Your task to perform on an android device: set the timer Image 0: 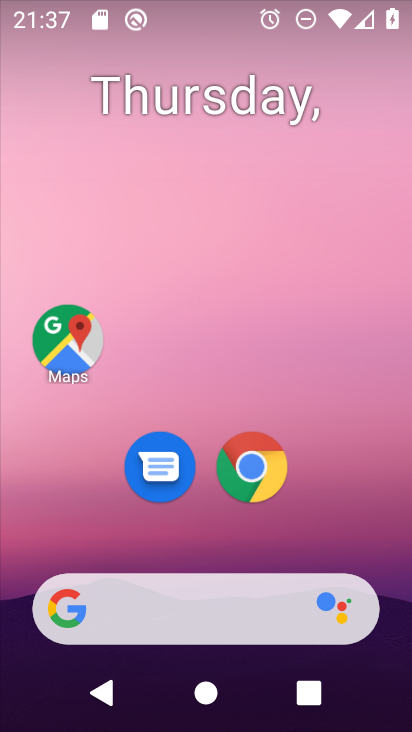
Step 0: drag from (360, 481) to (344, 205)
Your task to perform on an android device: set the timer Image 1: 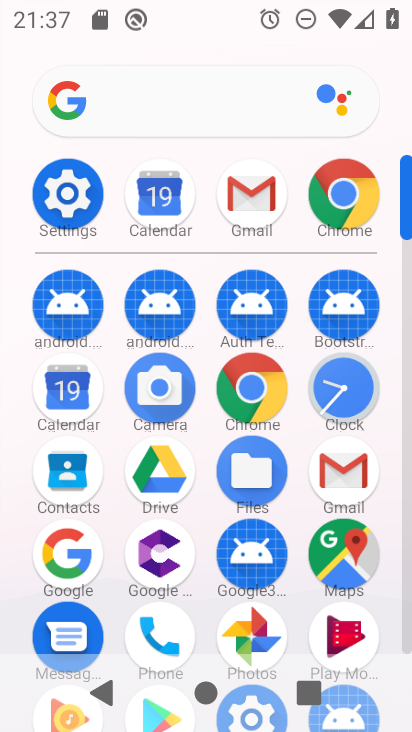
Step 1: click (340, 382)
Your task to perform on an android device: set the timer Image 2: 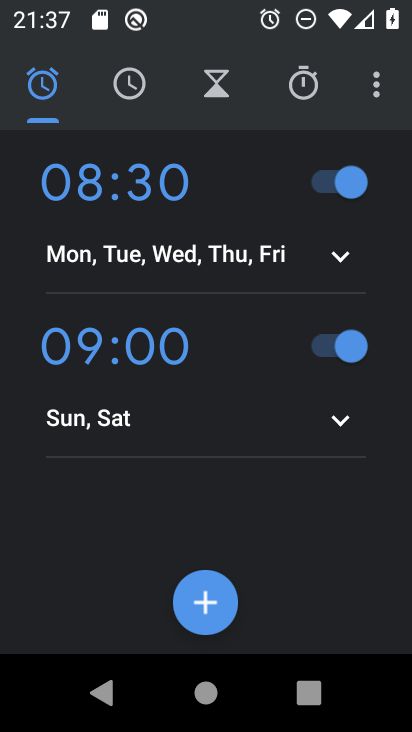
Step 2: click (216, 81)
Your task to perform on an android device: set the timer Image 3: 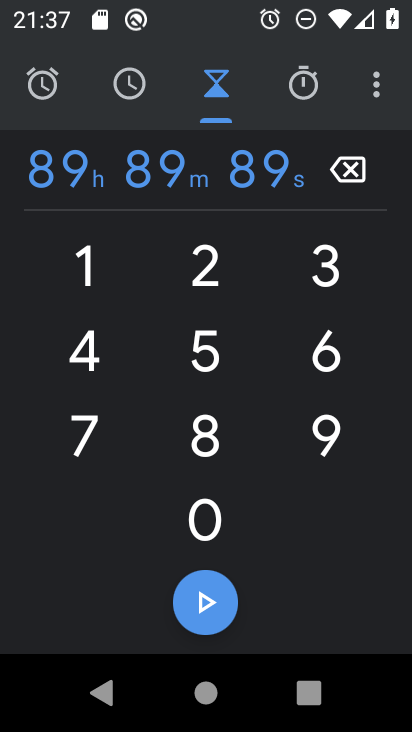
Step 3: click (221, 597)
Your task to perform on an android device: set the timer Image 4: 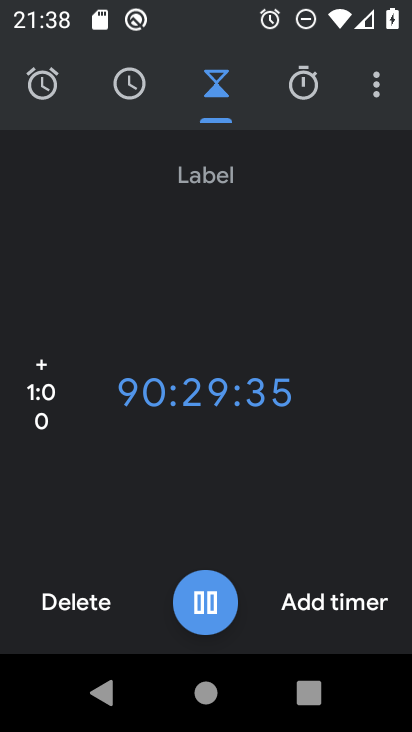
Step 4: task complete